Your task to perform on an android device: toggle translation in the chrome app Image 0: 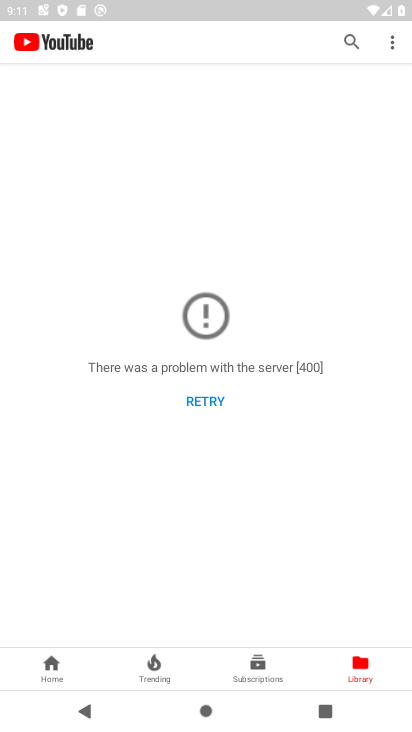
Step 0: press home button
Your task to perform on an android device: toggle translation in the chrome app Image 1: 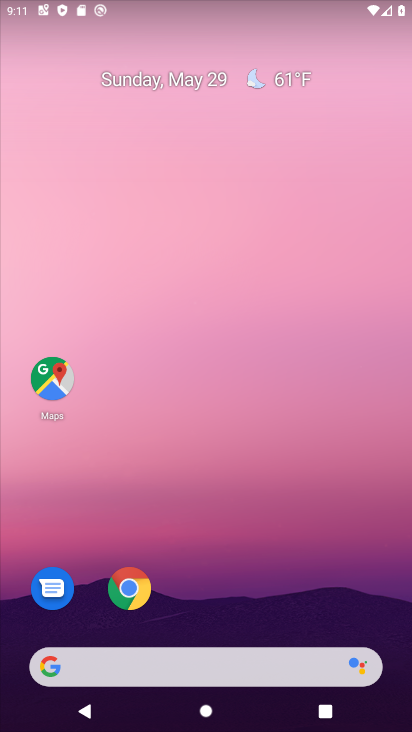
Step 1: drag from (256, 564) to (273, 53)
Your task to perform on an android device: toggle translation in the chrome app Image 2: 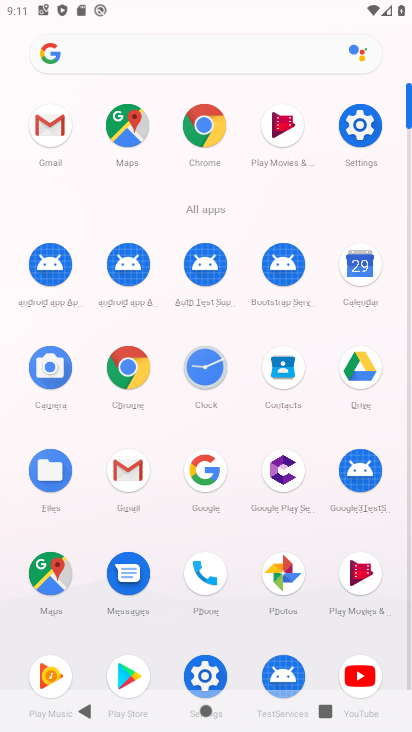
Step 2: click (210, 125)
Your task to perform on an android device: toggle translation in the chrome app Image 3: 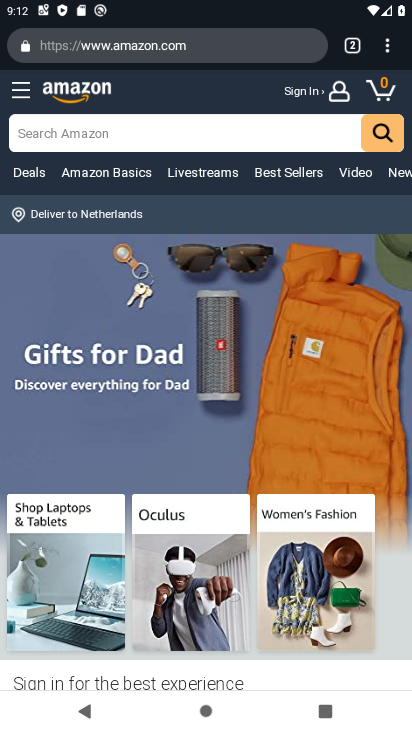
Step 3: drag from (385, 50) to (259, 540)
Your task to perform on an android device: toggle translation in the chrome app Image 4: 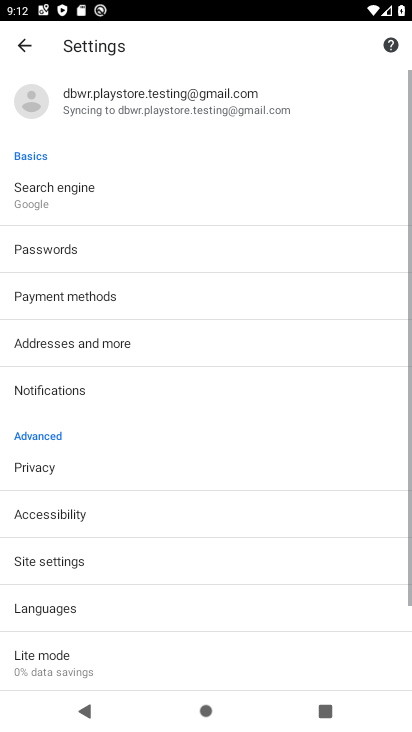
Step 4: drag from (234, 492) to (209, 383)
Your task to perform on an android device: toggle translation in the chrome app Image 5: 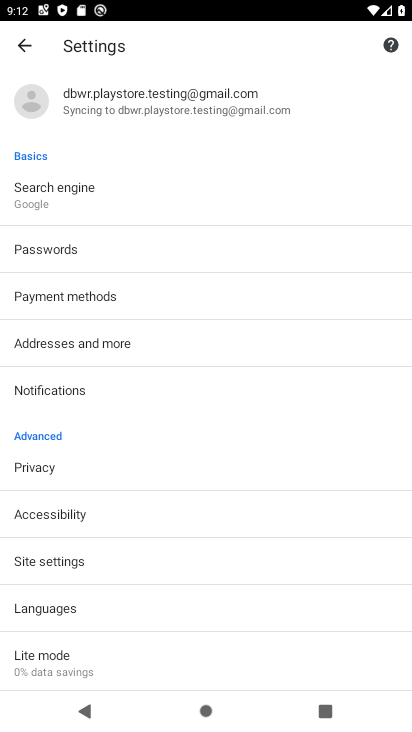
Step 5: click (115, 620)
Your task to perform on an android device: toggle translation in the chrome app Image 6: 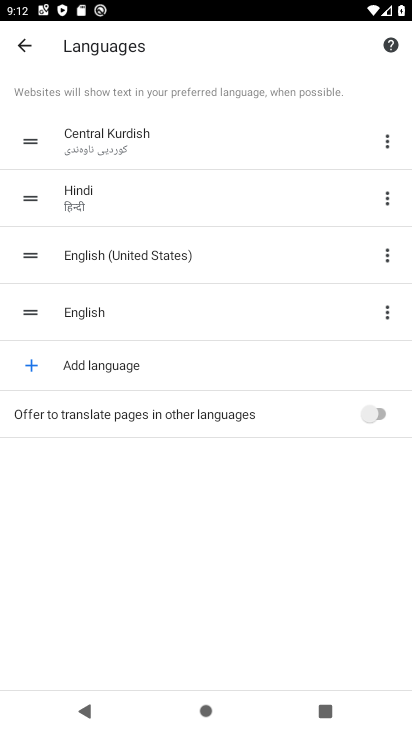
Step 6: click (378, 396)
Your task to perform on an android device: toggle translation in the chrome app Image 7: 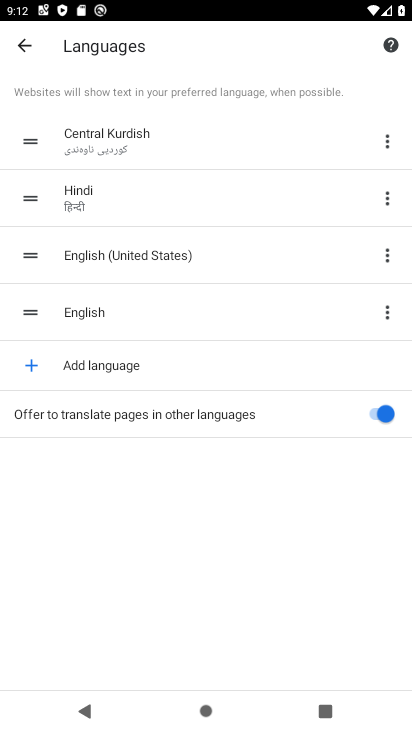
Step 7: task complete